Your task to perform on an android device: open a new tab in the chrome app Image 0: 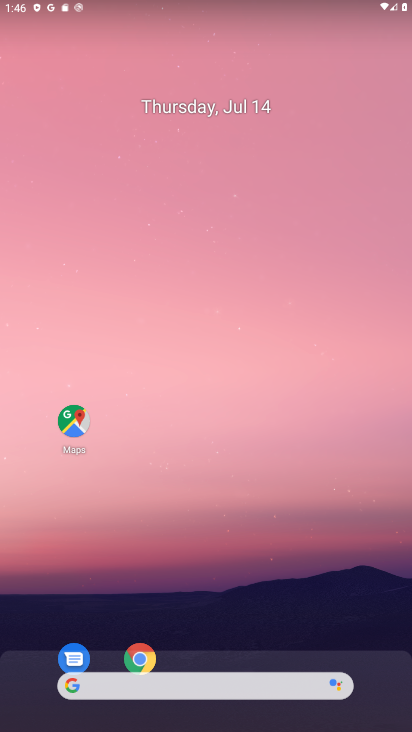
Step 0: click (147, 655)
Your task to perform on an android device: open a new tab in the chrome app Image 1: 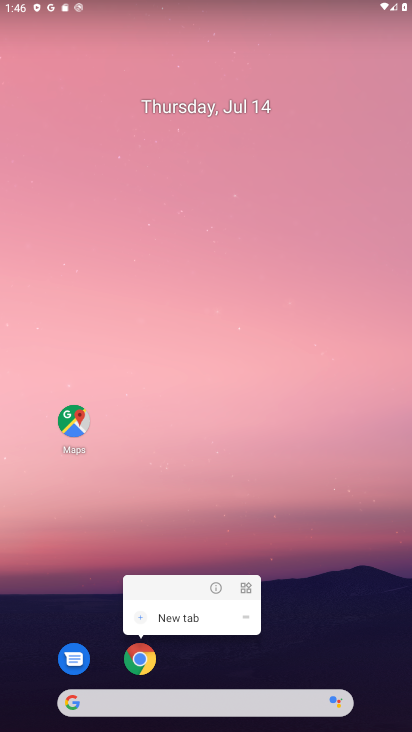
Step 1: click (148, 654)
Your task to perform on an android device: open a new tab in the chrome app Image 2: 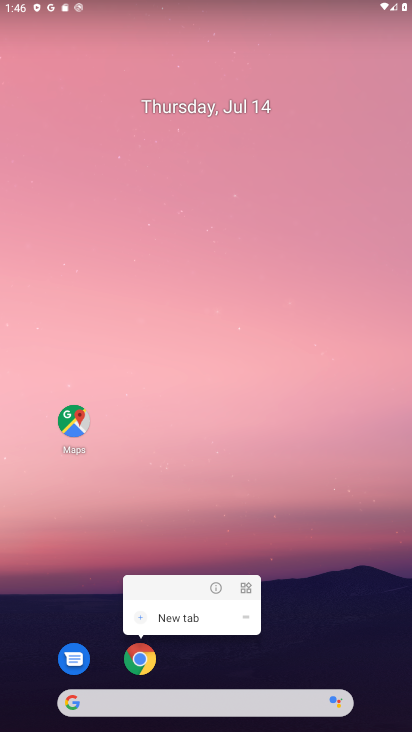
Step 2: click (148, 653)
Your task to perform on an android device: open a new tab in the chrome app Image 3: 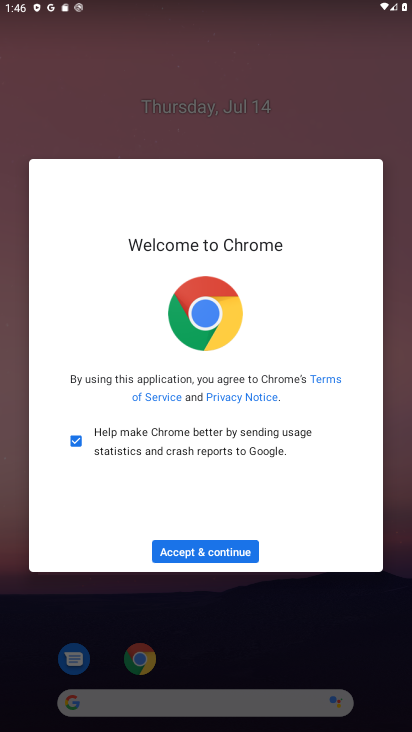
Step 3: click (215, 546)
Your task to perform on an android device: open a new tab in the chrome app Image 4: 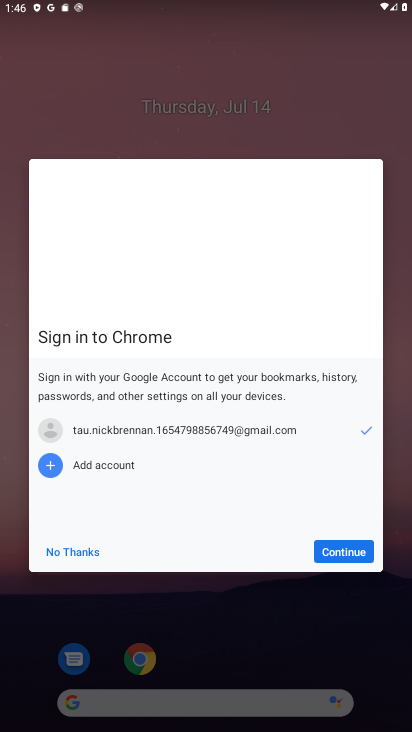
Step 4: click (334, 542)
Your task to perform on an android device: open a new tab in the chrome app Image 5: 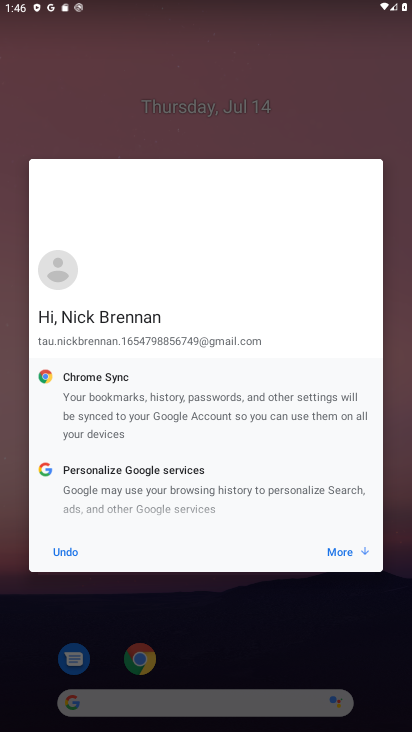
Step 5: click (334, 542)
Your task to perform on an android device: open a new tab in the chrome app Image 6: 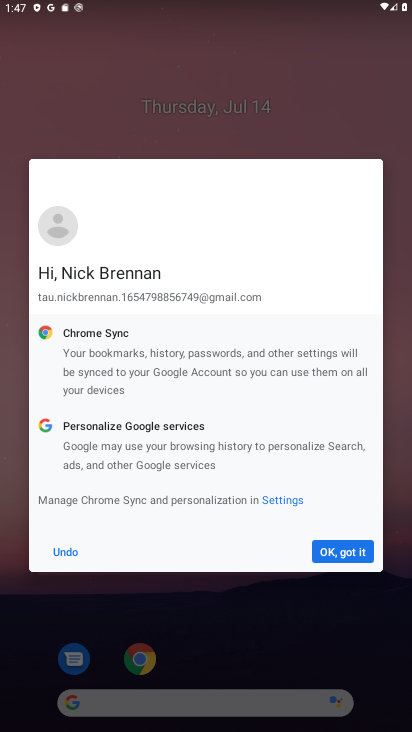
Step 6: click (370, 553)
Your task to perform on an android device: open a new tab in the chrome app Image 7: 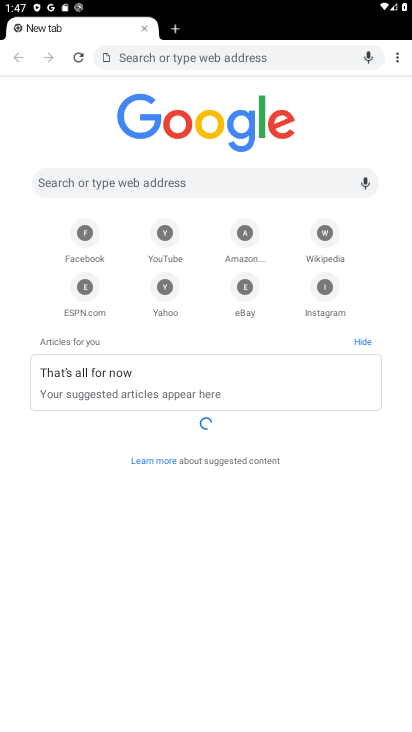
Step 7: click (178, 34)
Your task to perform on an android device: open a new tab in the chrome app Image 8: 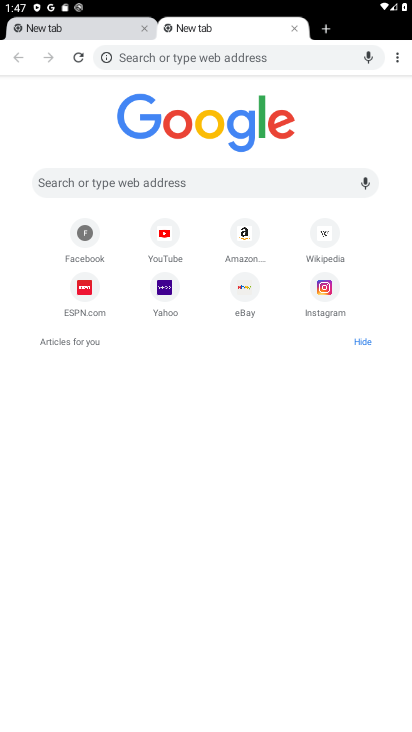
Step 8: task complete